Your task to perform on an android device: Show me productivity apps on the Play Store Image 0: 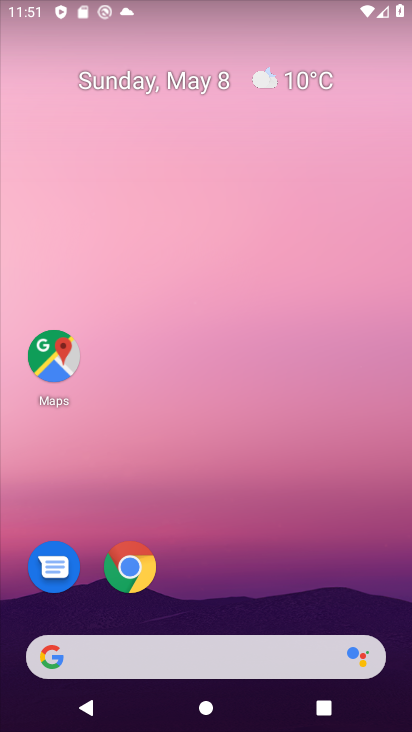
Step 0: drag from (201, 598) to (209, 130)
Your task to perform on an android device: Show me productivity apps on the Play Store Image 1: 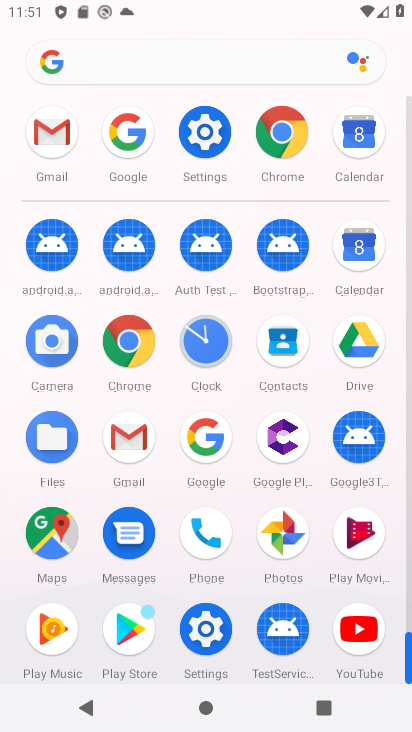
Step 1: click (121, 624)
Your task to perform on an android device: Show me productivity apps on the Play Store Image 2: 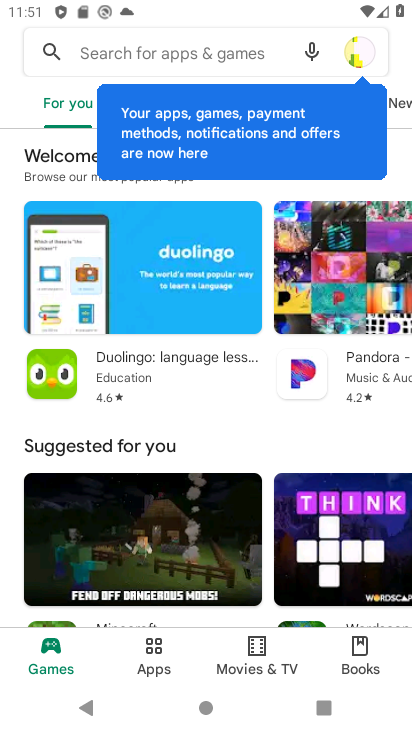
Step 2: click (159, 62)
Your task to perform on an android device: Show me productivity apps on the Play Store Image 3: 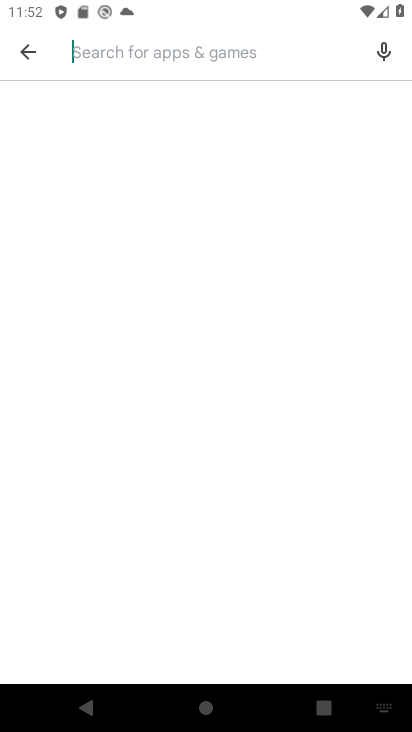
Step 3: type "productivity aaps"
Your task to perform on an android device: Show me productivity apps on the Play Store Image 4: 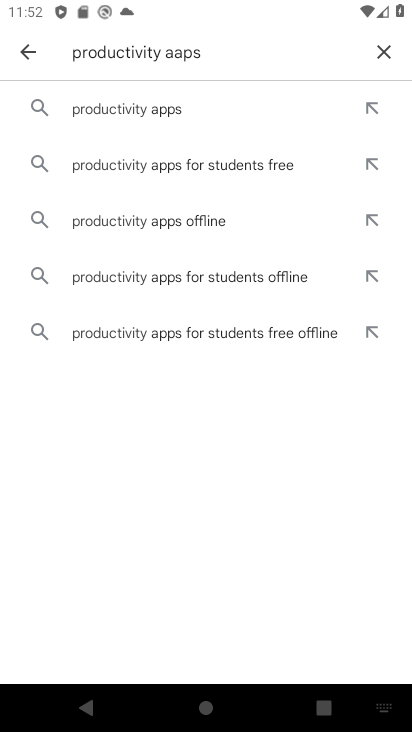
Step 4: click (241, 107)
Your task to perform on an android device: Show me productivity apps on the Play Store Image 5: 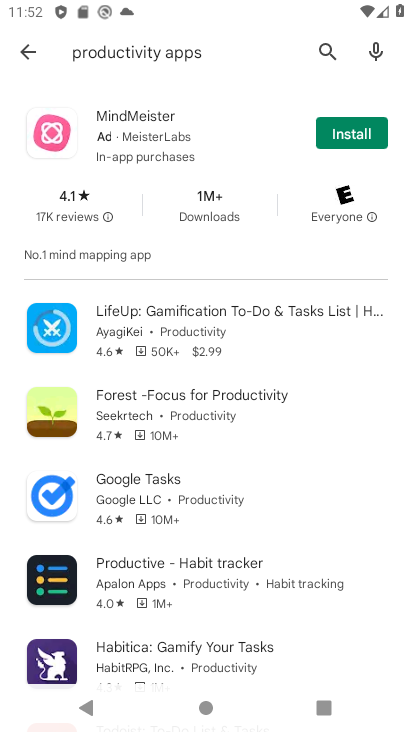
Step 5: task complete